Your task to perform on an android device: check google app version Image 0: 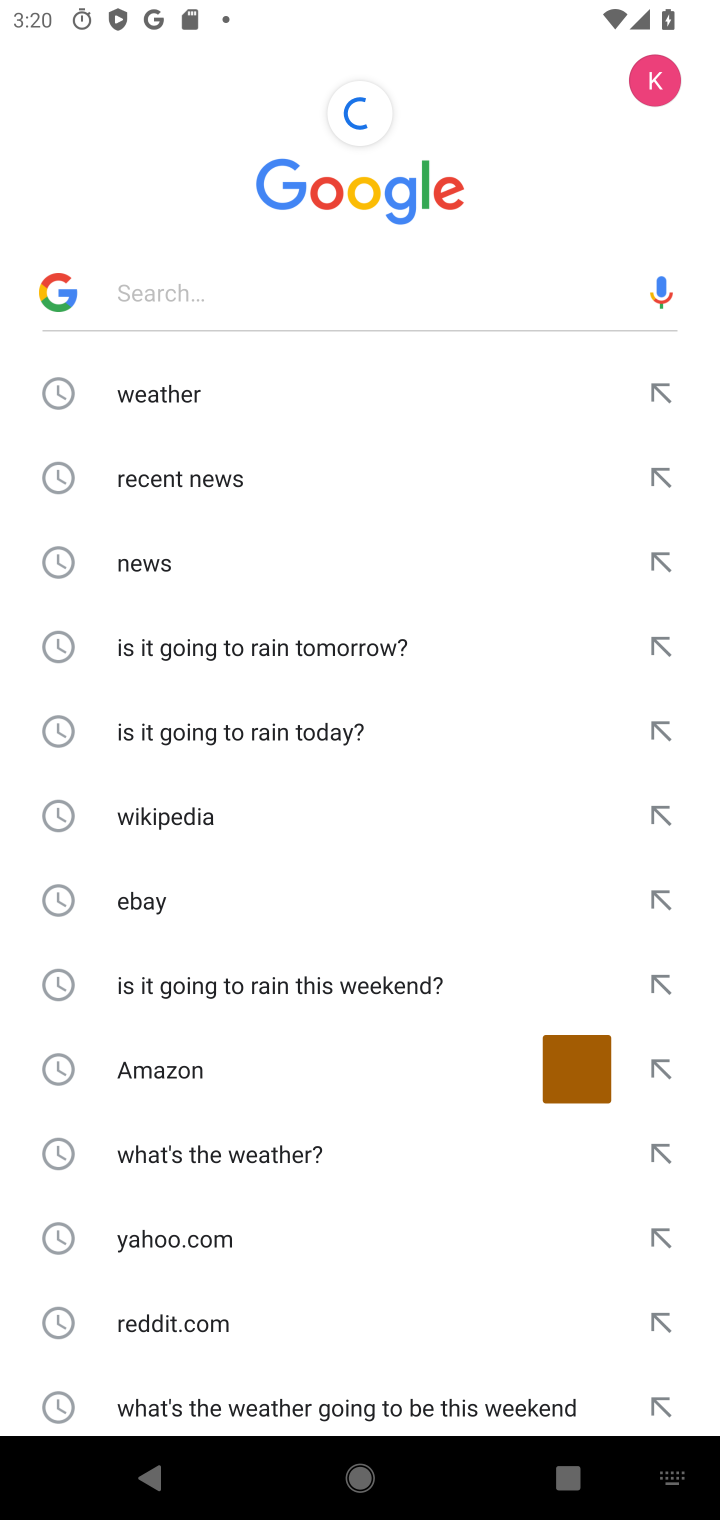
Step 0: press back button
Your task to perform on an android device: check google app version Image 1: 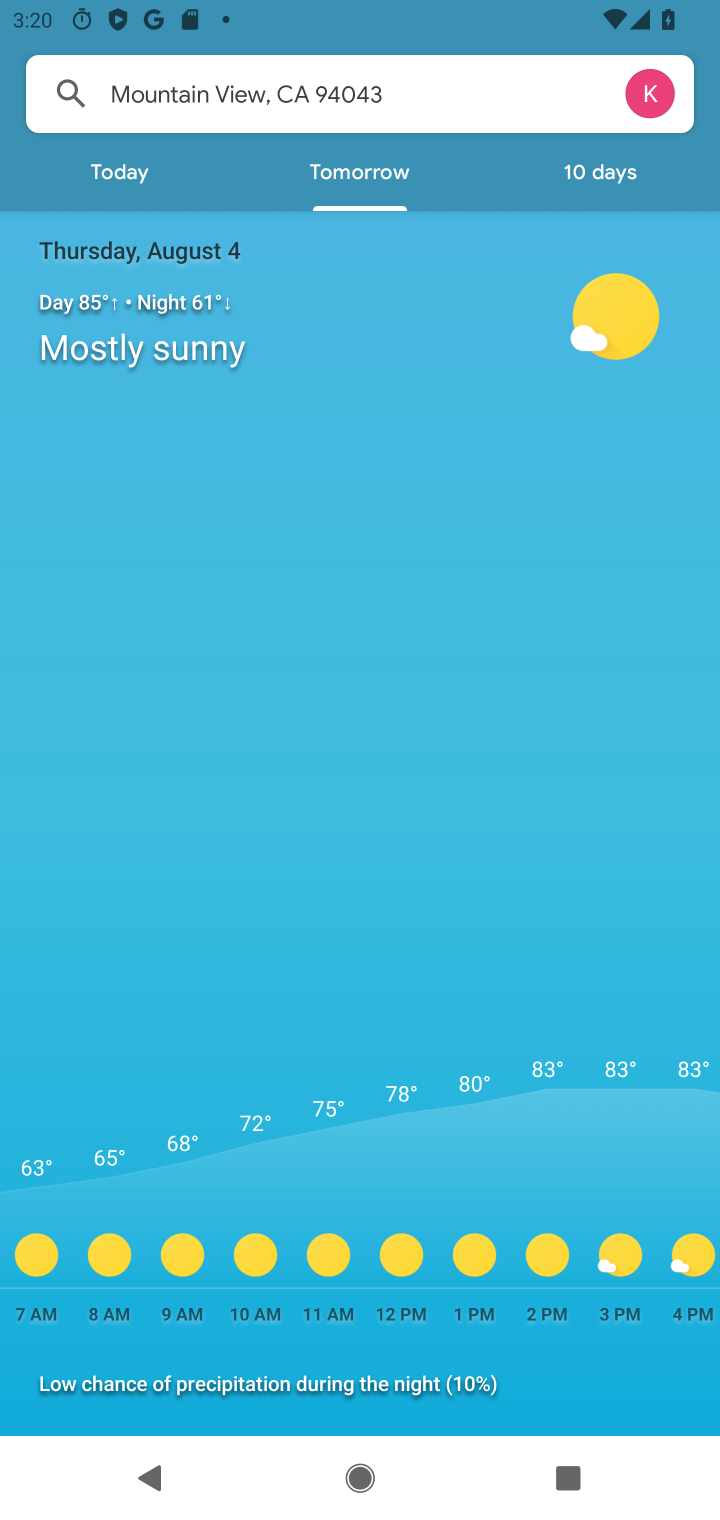
Step 1: press back button
Your task to perform on an android device: check google app version Image 2: 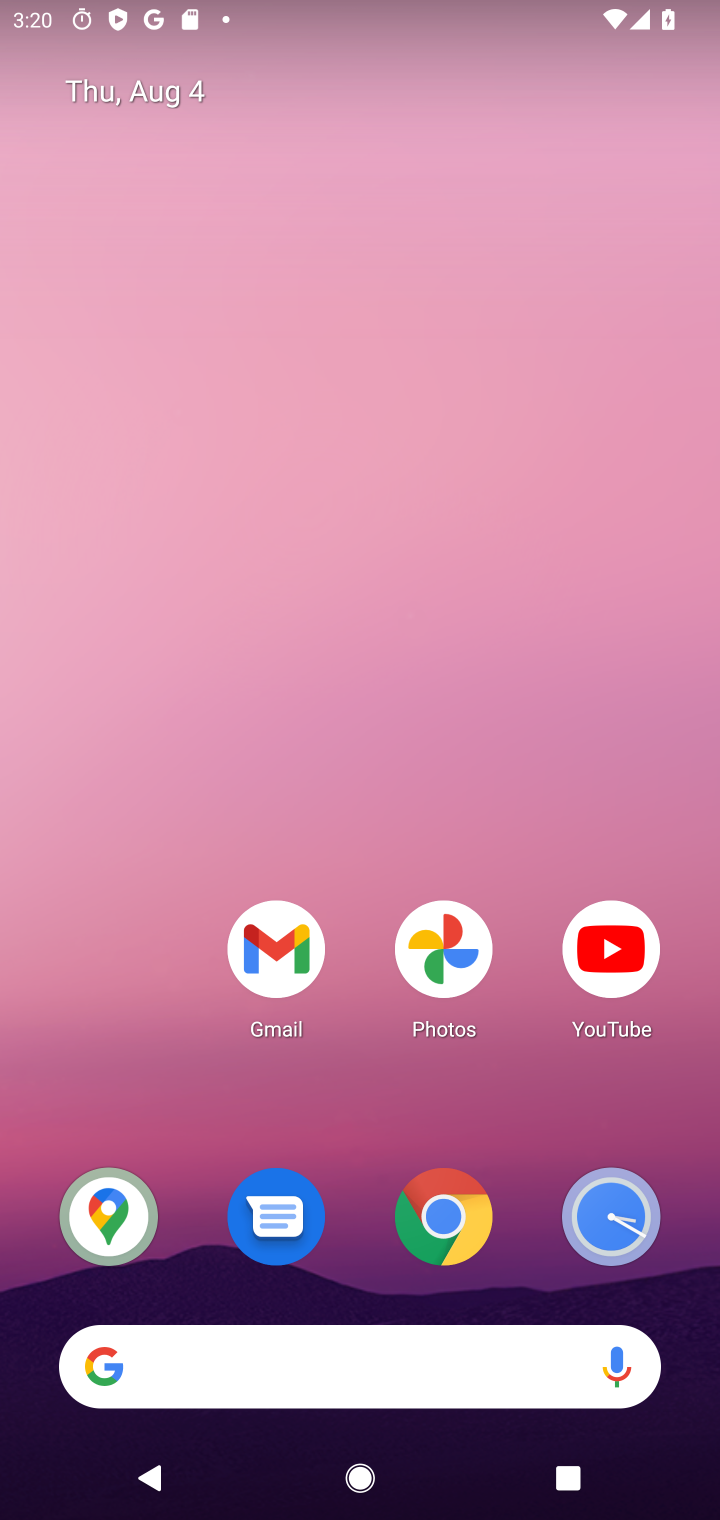
Step 2: drag from (140, 967) to (291, 166)
Your task to perform on an android device: check google app version Image 3: 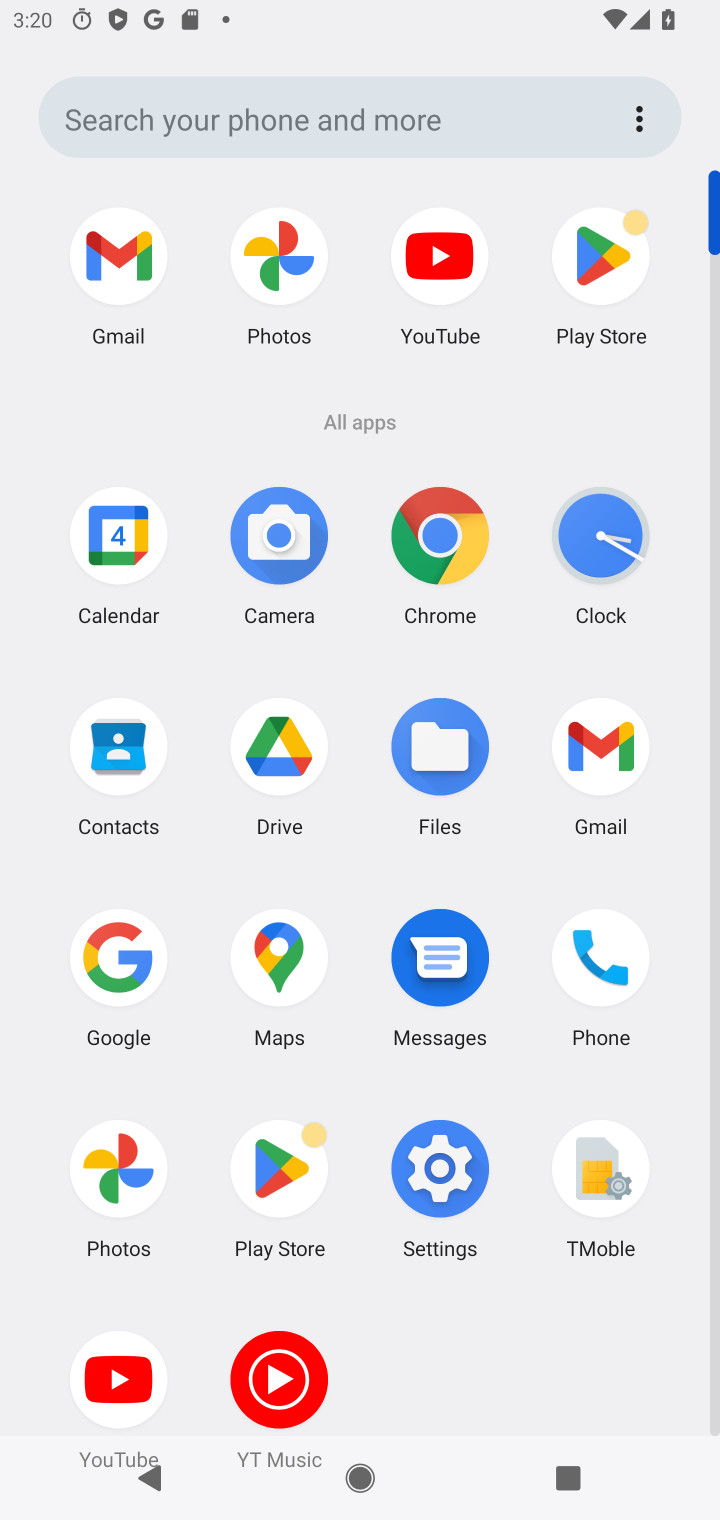
Step 3: click (138, 950)
Your task to perform on an android device: check google app version Image 4: 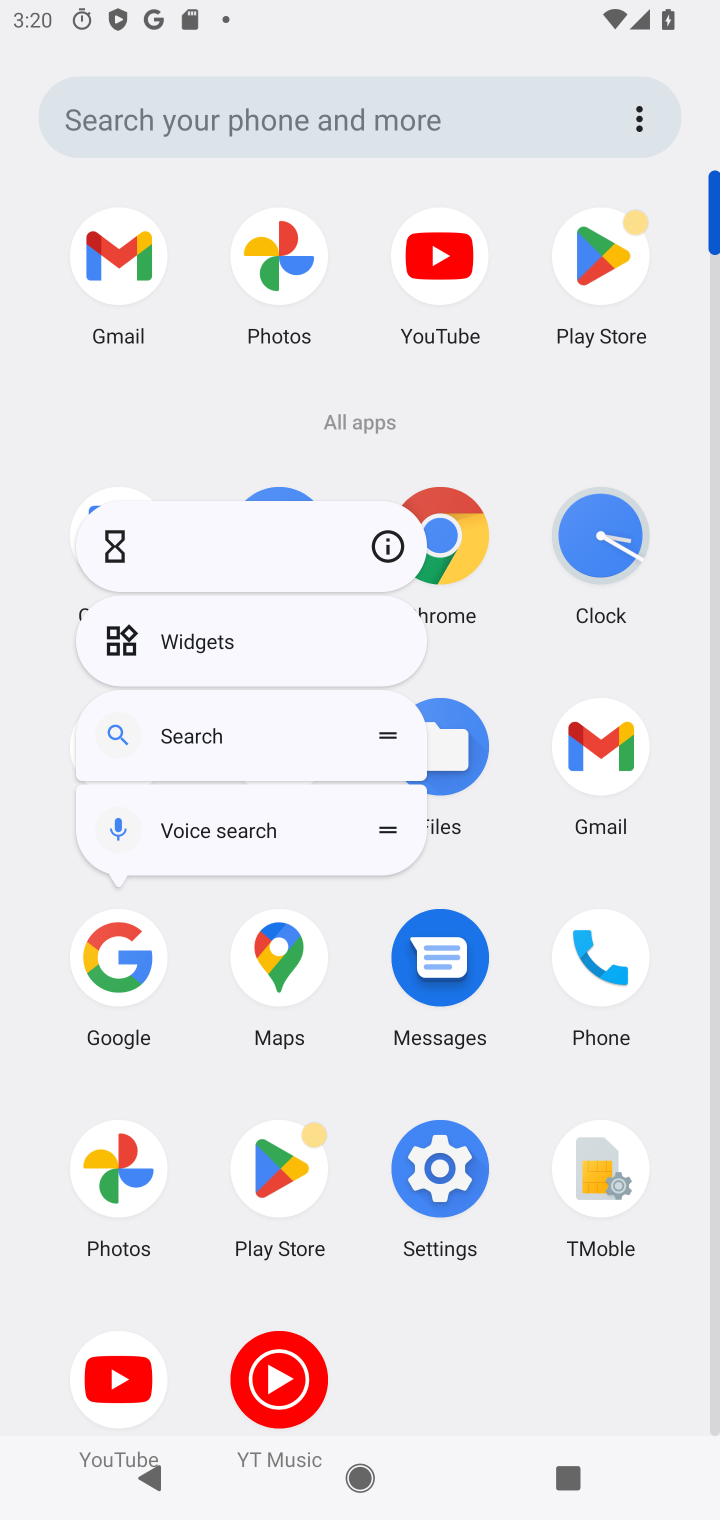
Step 4: click (391, 549)
Your task to perform on an android device: check google app version Image 5: 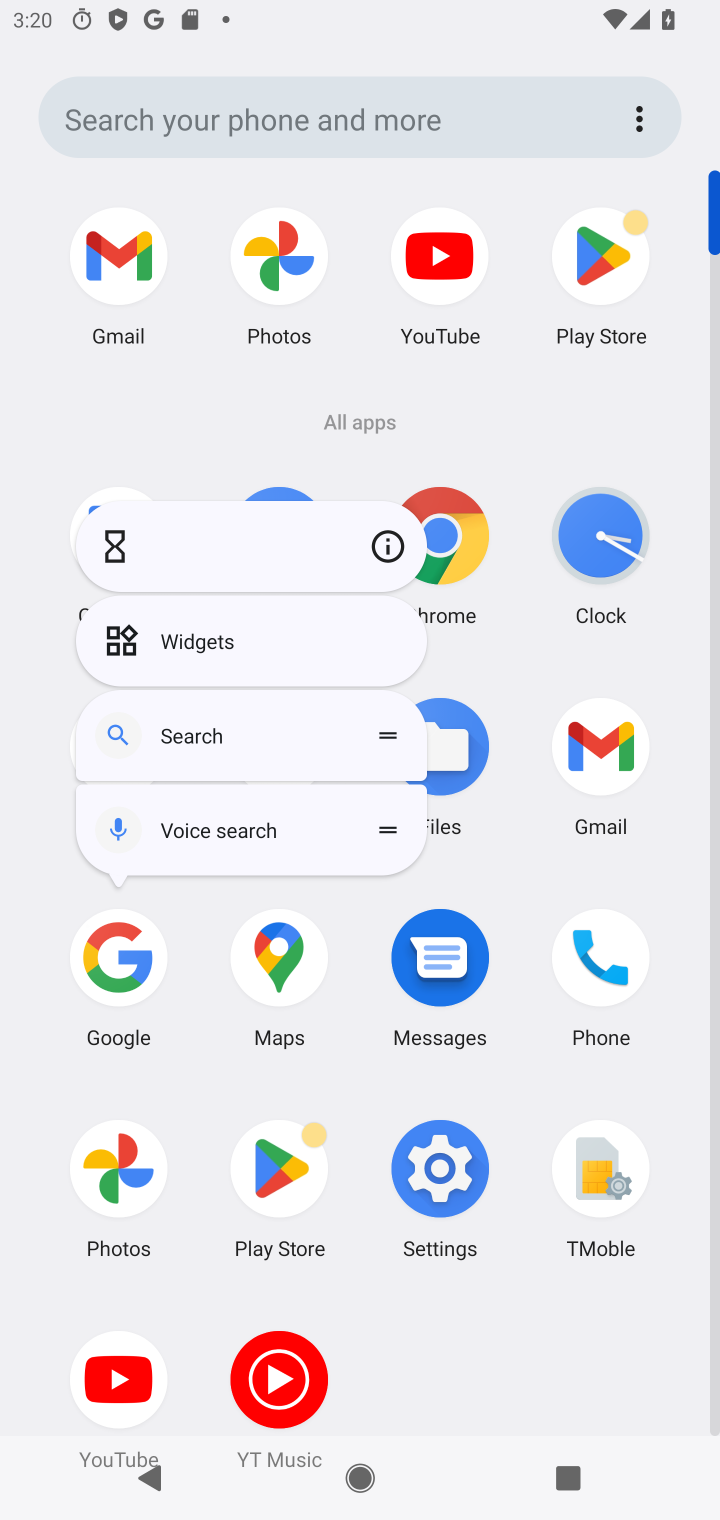
Step 5: click (388, 549)
Your task to perform on an android device: check google app version Image 6: 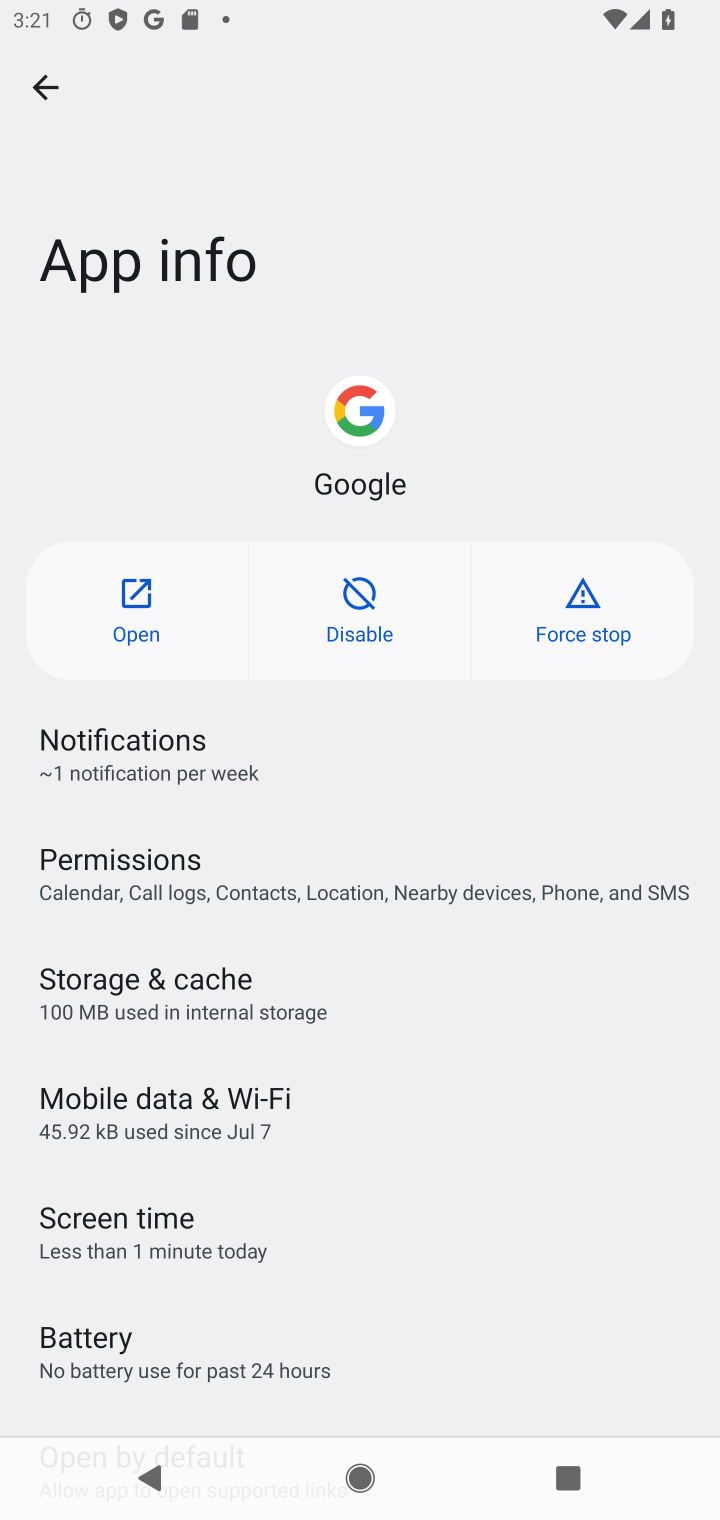
Step 6: task complete